Your task to perform on an android device: snooze an email in the gmail app Image 0: 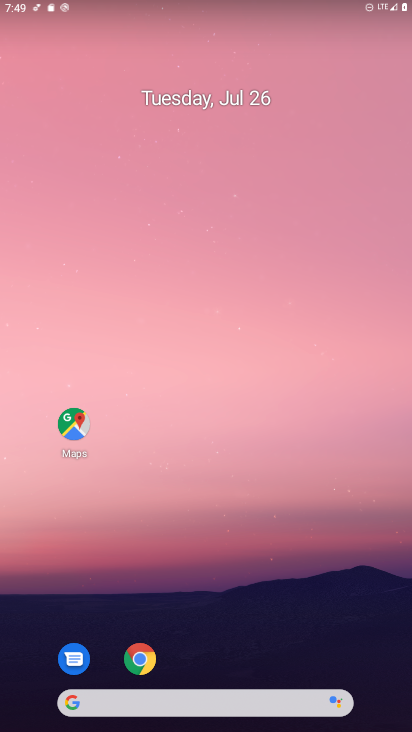
Step 0: drag from (163, 663) to (277, 95)
Your task to perform on an android device: snooze an email in the gmail app Image 1: 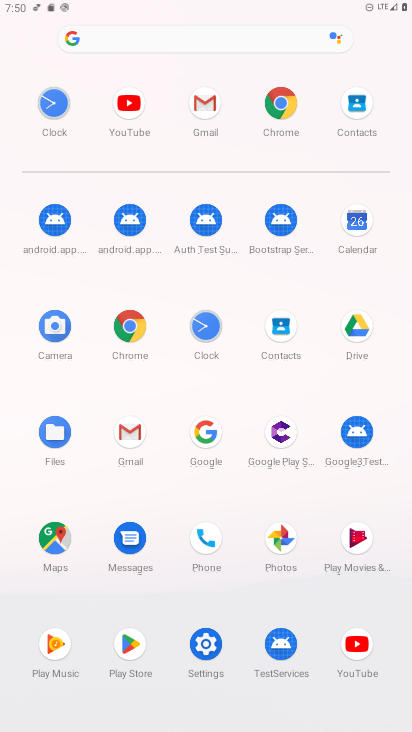
Step 1: click (133, 431)
Your task to perform on an android device: snooze an email in the gmail app Image 2: 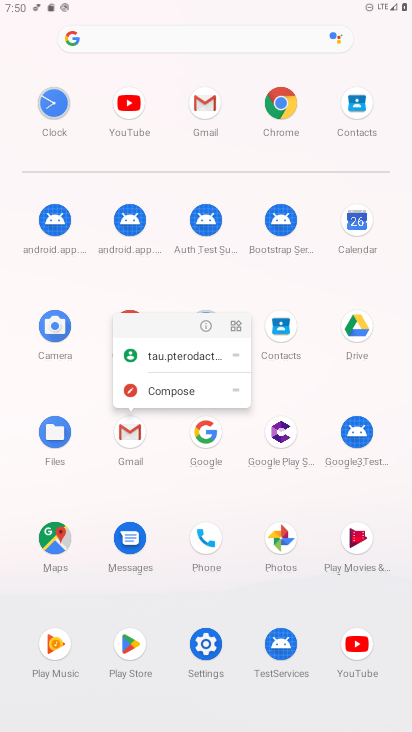
Step 2: click (206, 329)
Your task to perform on an android device: snooze an email in the gmail app Image 3: 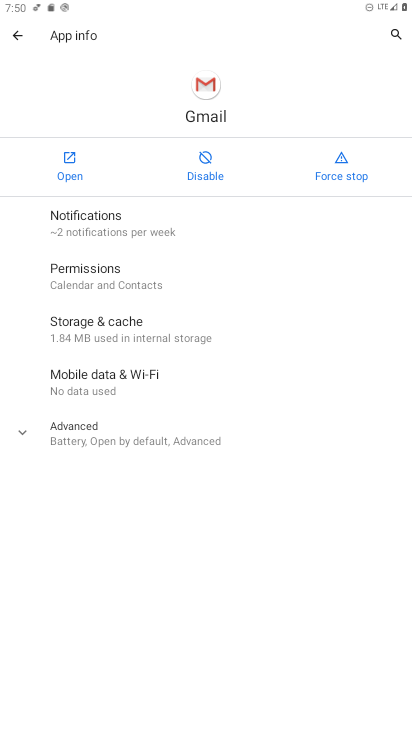
Step 3: click (68, 158)
Your task to perform on an android device: snooze an email in the gmail app Image 4: 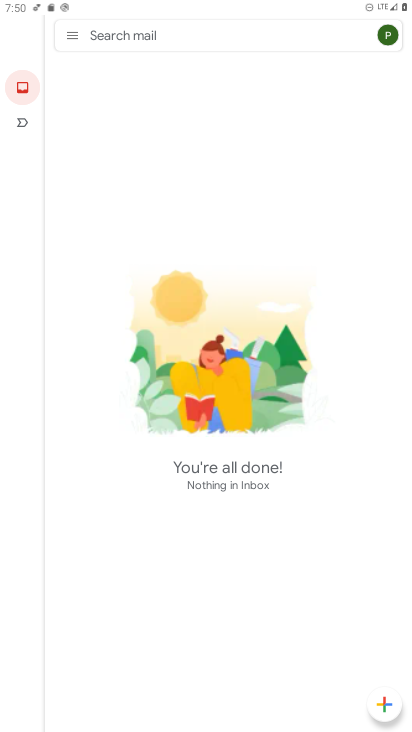
Step 4: click (64, 22)
Your task to perform on an android device: snooze an email in the gmail app Image 5: 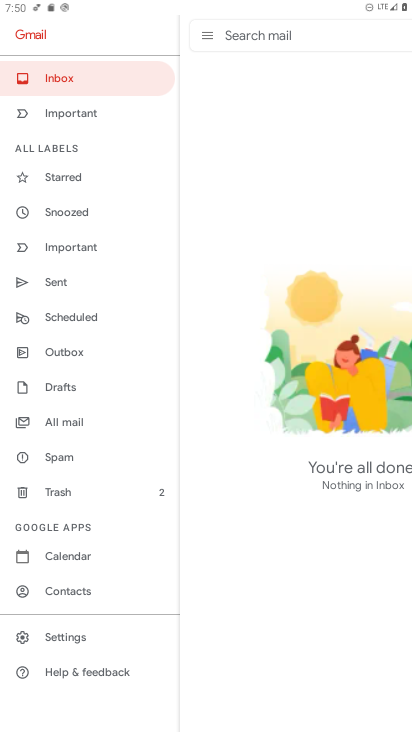
Step 5: click (71, 215)
Your task to perform on an android device: snooze an email in the gmail app Image 6: 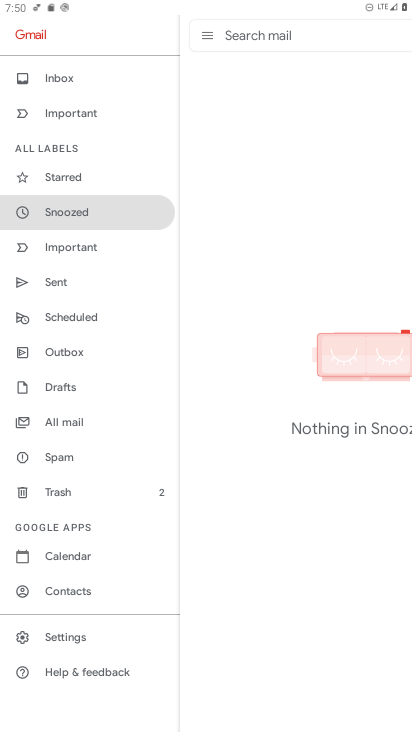
Step 6: click (70, 83)
Your task to perform on an android device: snooze an email in the gmail app Image 7: 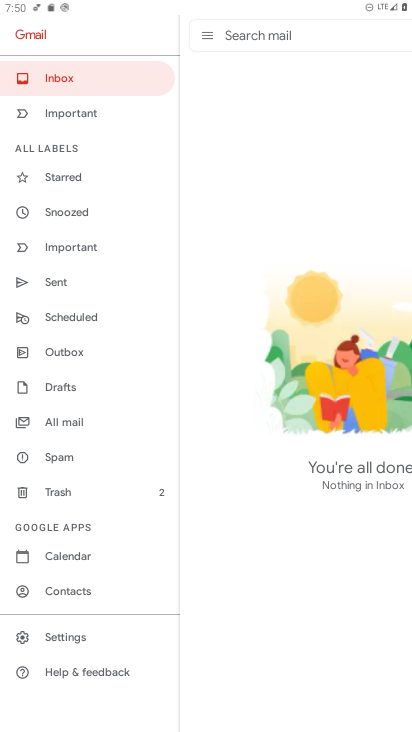
Step 7: click (307, 384)
Your task to perform on an android device: snooze an email in the gmail app Image 8: 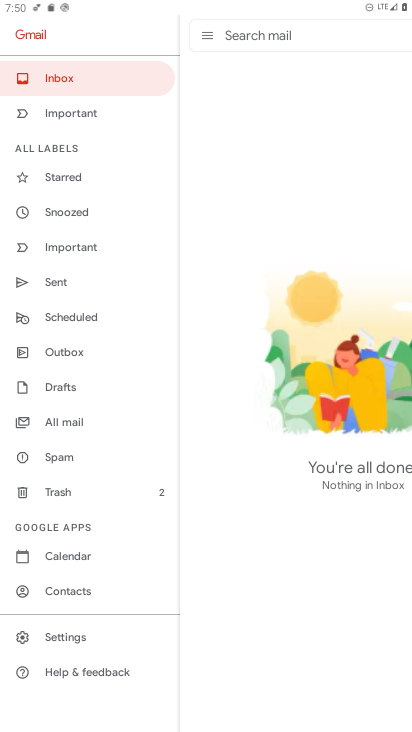
Step 8: click (304, 383)
Your task to perform on an android device: snooze an email in the gmail app Image 9: 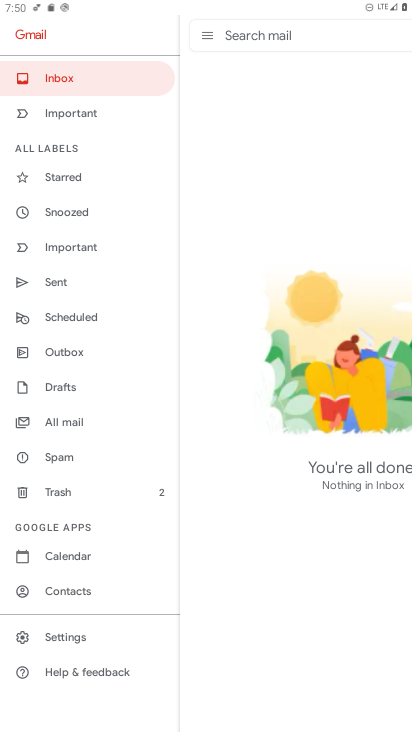
Step 9: task complete